Your task to perform on an android device: Go to internet settings Image 0: 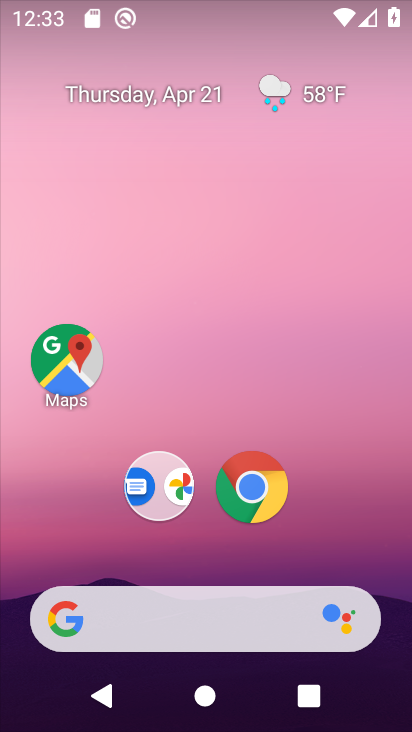
Step 0: drag from (246, 651) to (274, 137)
Your task to perform on an android device: Go to internet settings Image 1: 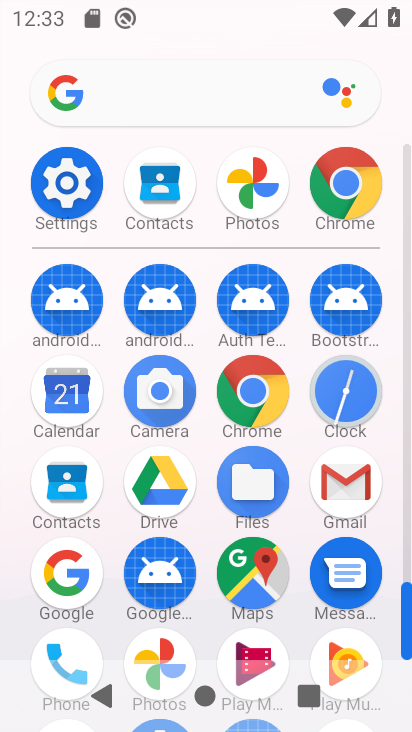
Step 1: click (69, 195)
Your task to perform on an android device: Go to internet settings Image 2: 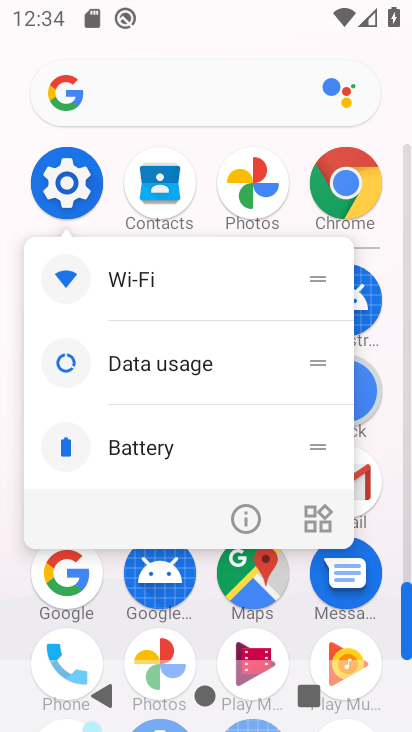
Step 2: click (69, 195)
Your task to perform on an android device: Go to internet settings Image 3: 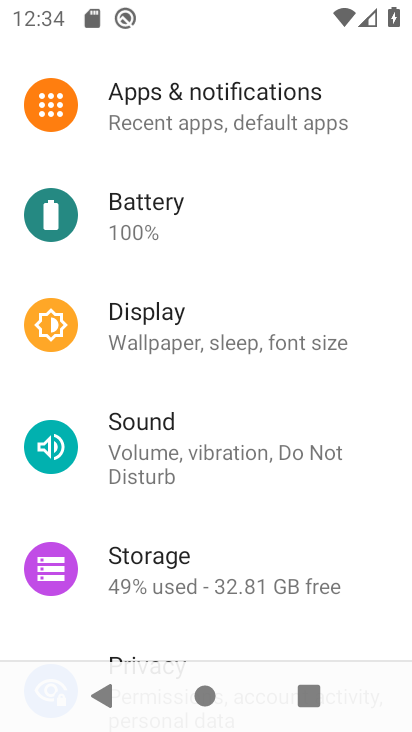
Step 3: click (168, 86)
Your task to perform on an android device: Go to internet settings Image 4: 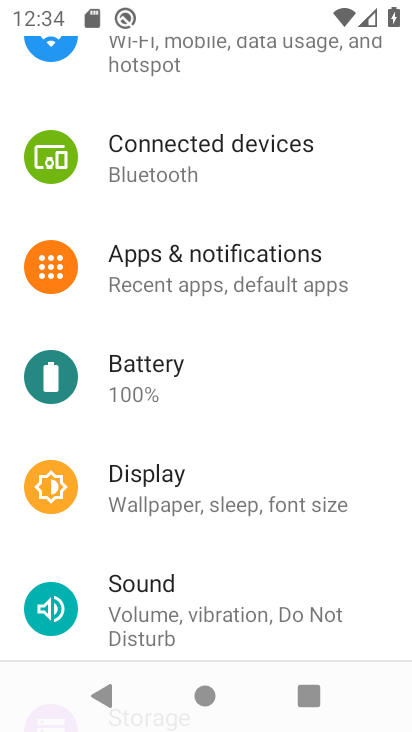
Step 4: click (189, 68)
Your task to perform on an android device: Go to internet settings Image 5: 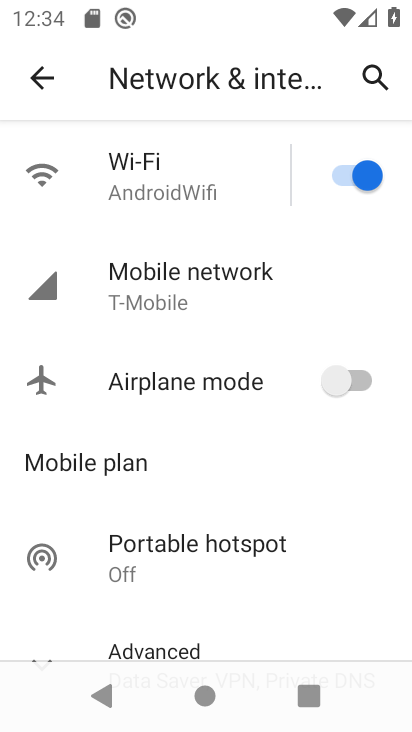
Step 5: task complete